Your task to perform on an android device: Do I have any events tomorrow? Image 0: 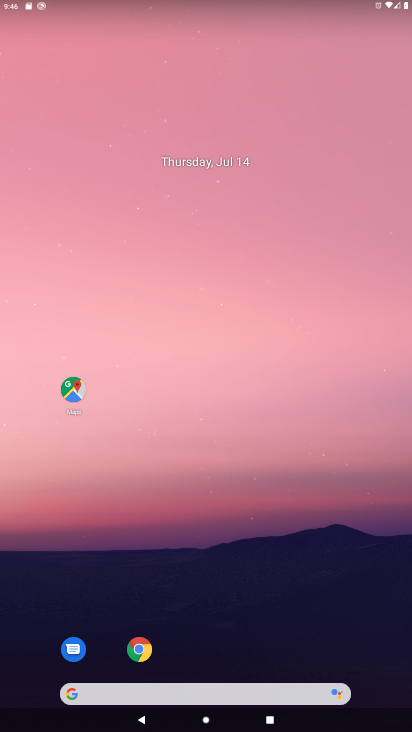
Step 0: drag from (196, 707) to (238, 65)
Your task to perform on an android device: Do I have any events tomorrow? Image 1: 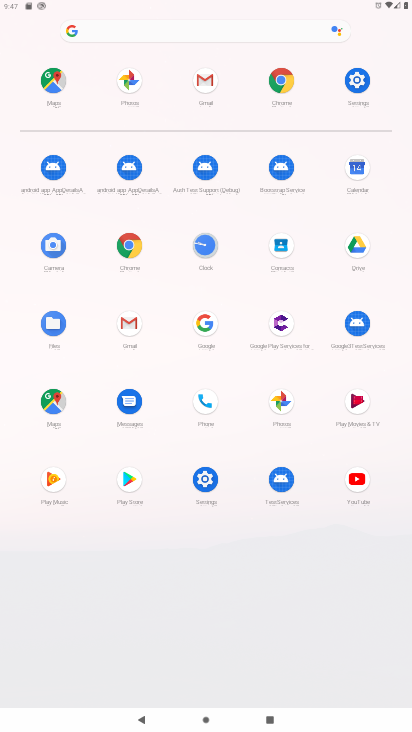
Step 1: click (351, 175)
Your task to perform on an android device: Do I have any events tomorrow? Image 2: 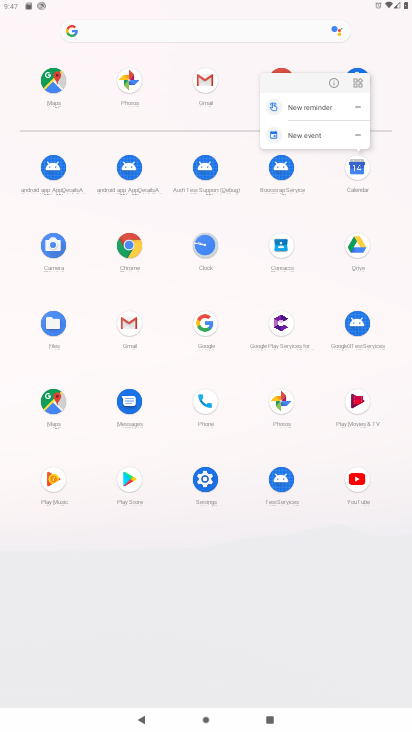
Step 2: click (353, 177)
Your task to perform on an android device: Do I have any events tomorrow? Image 3: 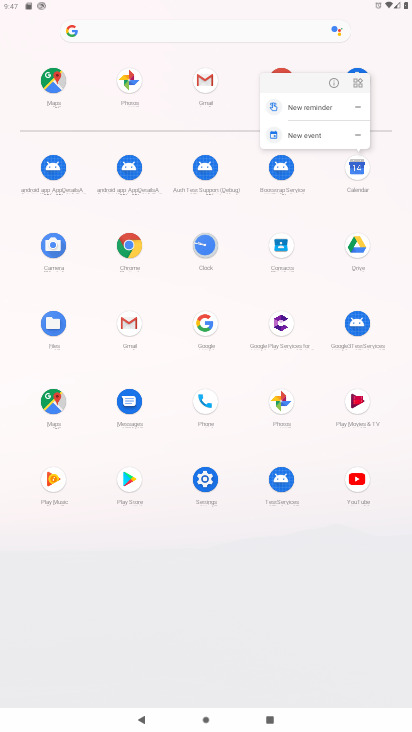
Step 3: click (353, 177)
Your task to perform on an android device: Do I have any events tomorrow? Image 4: 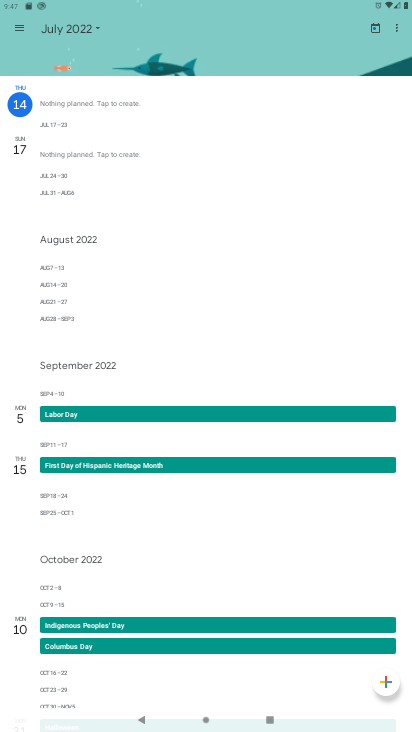
Step 4: click (64, 23)
Your task to perform on an android device: Do I have any events tomorrow? Image 5: 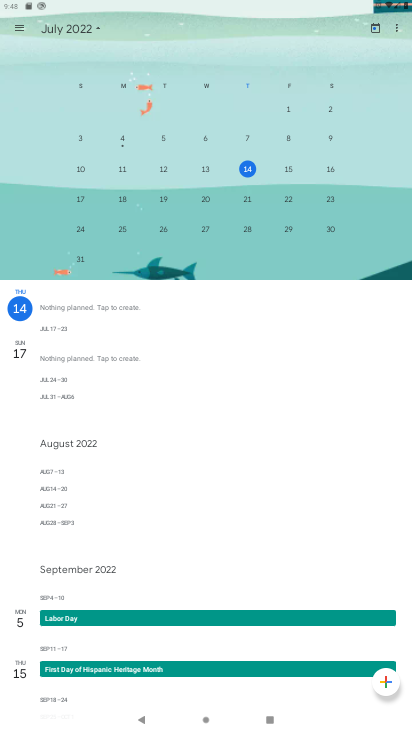
Step 5: click (290, 170)
Your task to perform on an android device: Do I have any events tomorrow? Image 6: 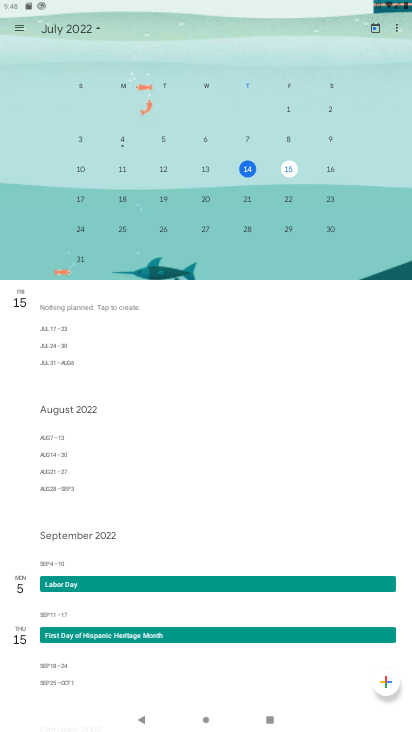
Step 6: task complete